Your task to perform on an android device: turn off sleep mode Image 0: 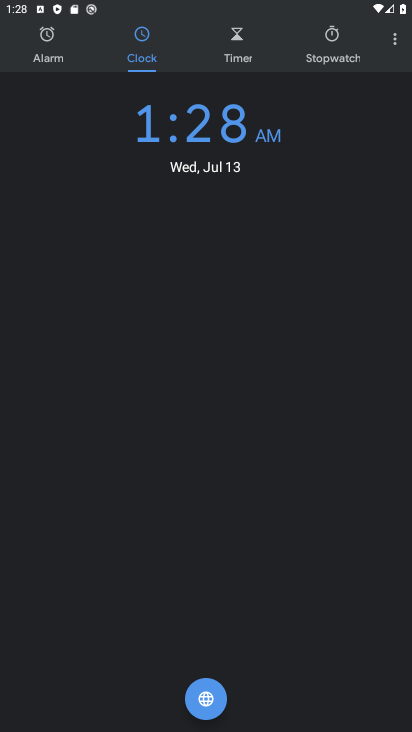
Step 0: press home button
Your task to perform on an android device: turn off sleep mode Image 1: 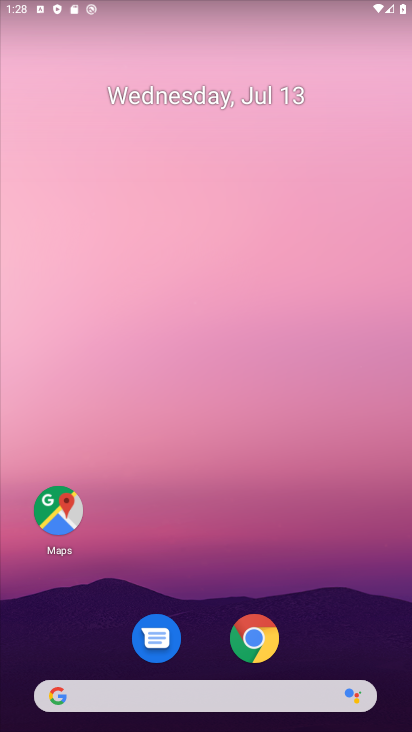
Step 1: drag from (183, 712) to (224, 149)
Your task to perform on an android device: turn off sleep mode Image 2: 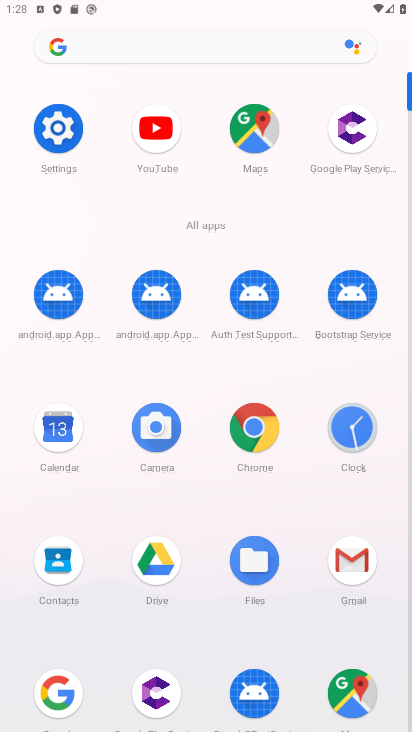
Step 2: click (48, 136)
Your task to perform on an android device: turn off sleep mode Image 3: 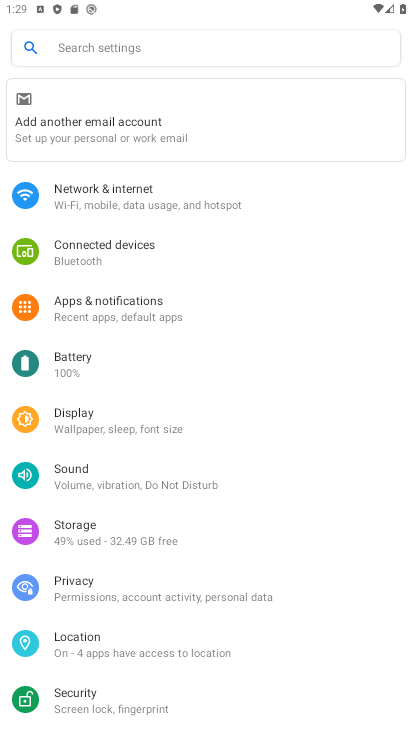
Step 3: click (177, 432)
Your task to perform on an android device: turn off sleep mode Image 4: 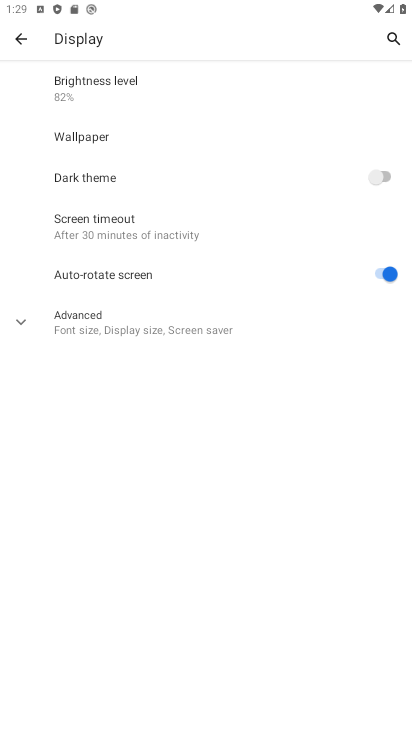
Step 4: task complete